Your task to perform on an android device: Open internet settings Image 0: 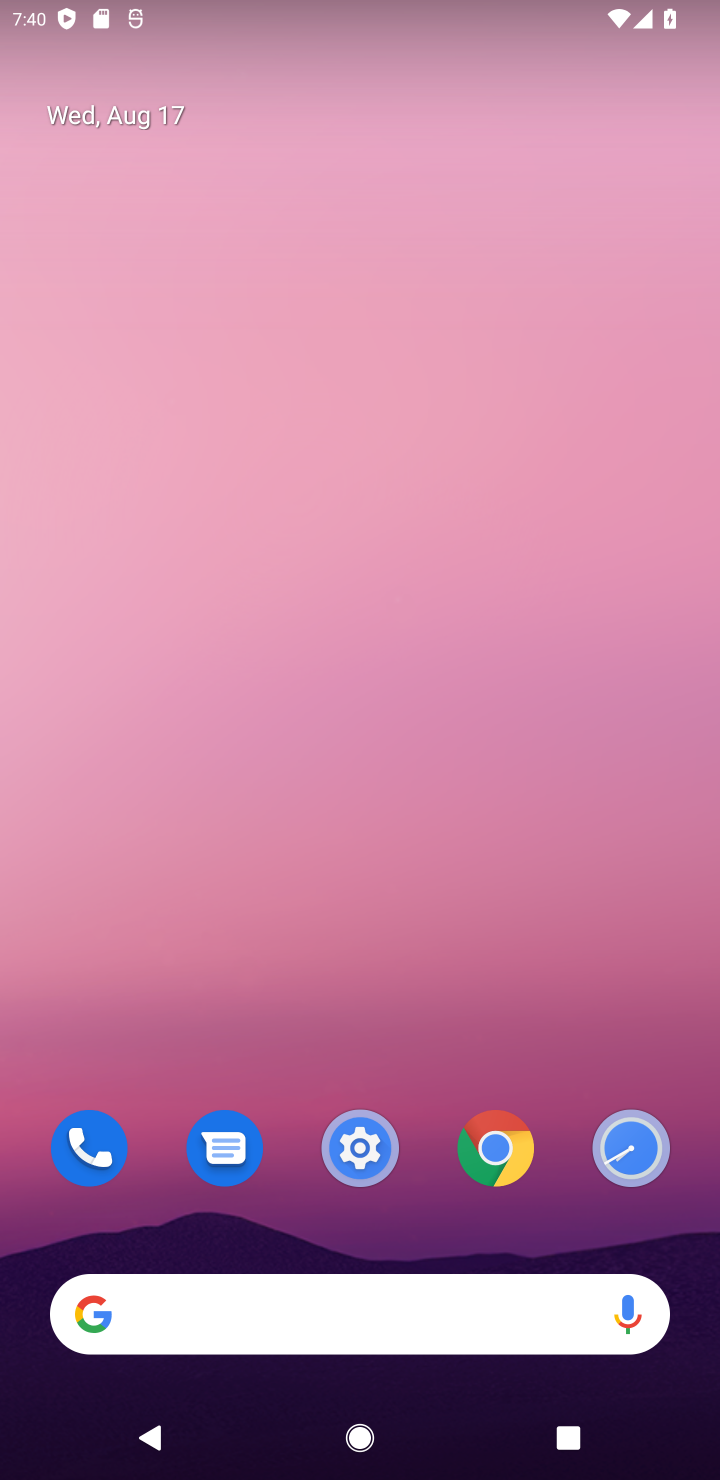
Step 0: click (353, 1147)
Your task to perform on an android device: Open internet settings Image 1: 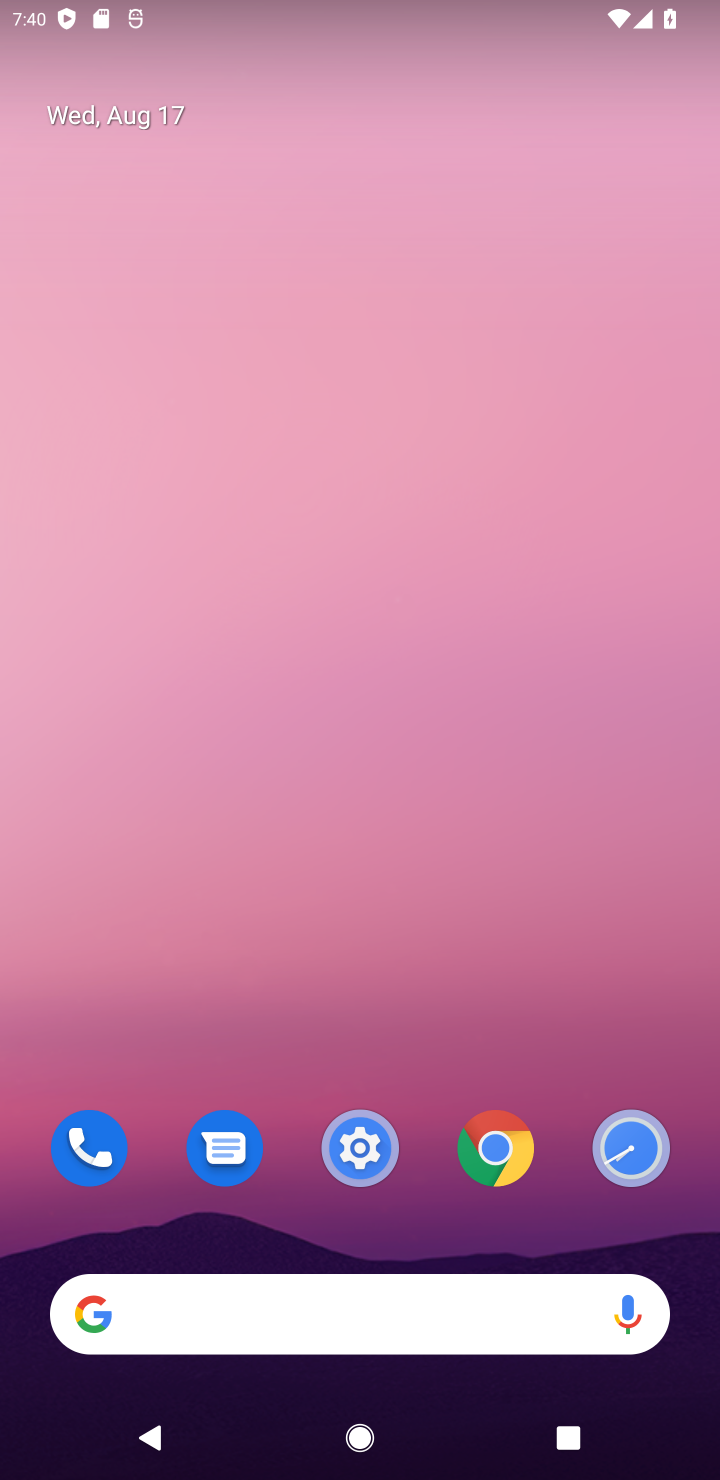
Step 1: click (379, 1151)
Your task to perform on an android device: Open internet settings Image 2: 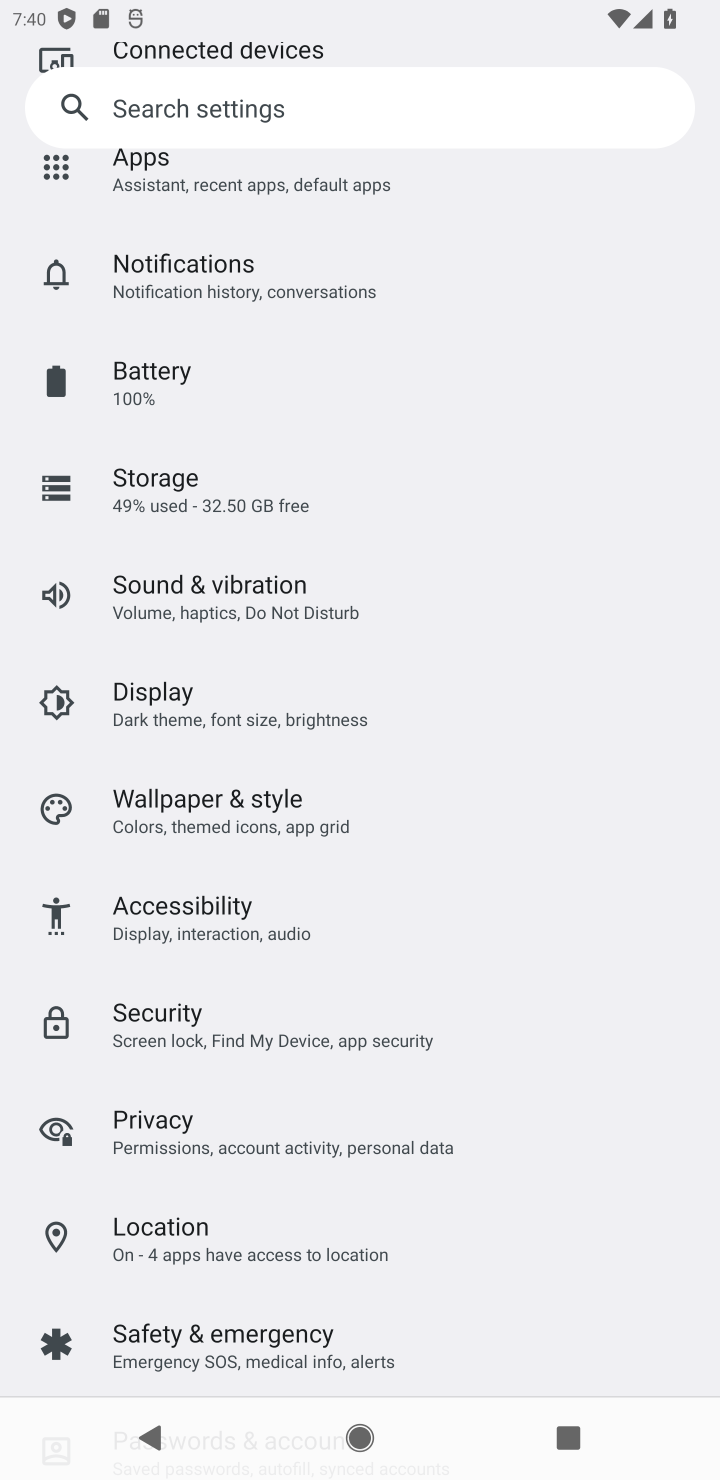
Step 2: drag from (257, 382) to (257, 1128)
Your task to perform on an android device: Open internet settings Image 3: 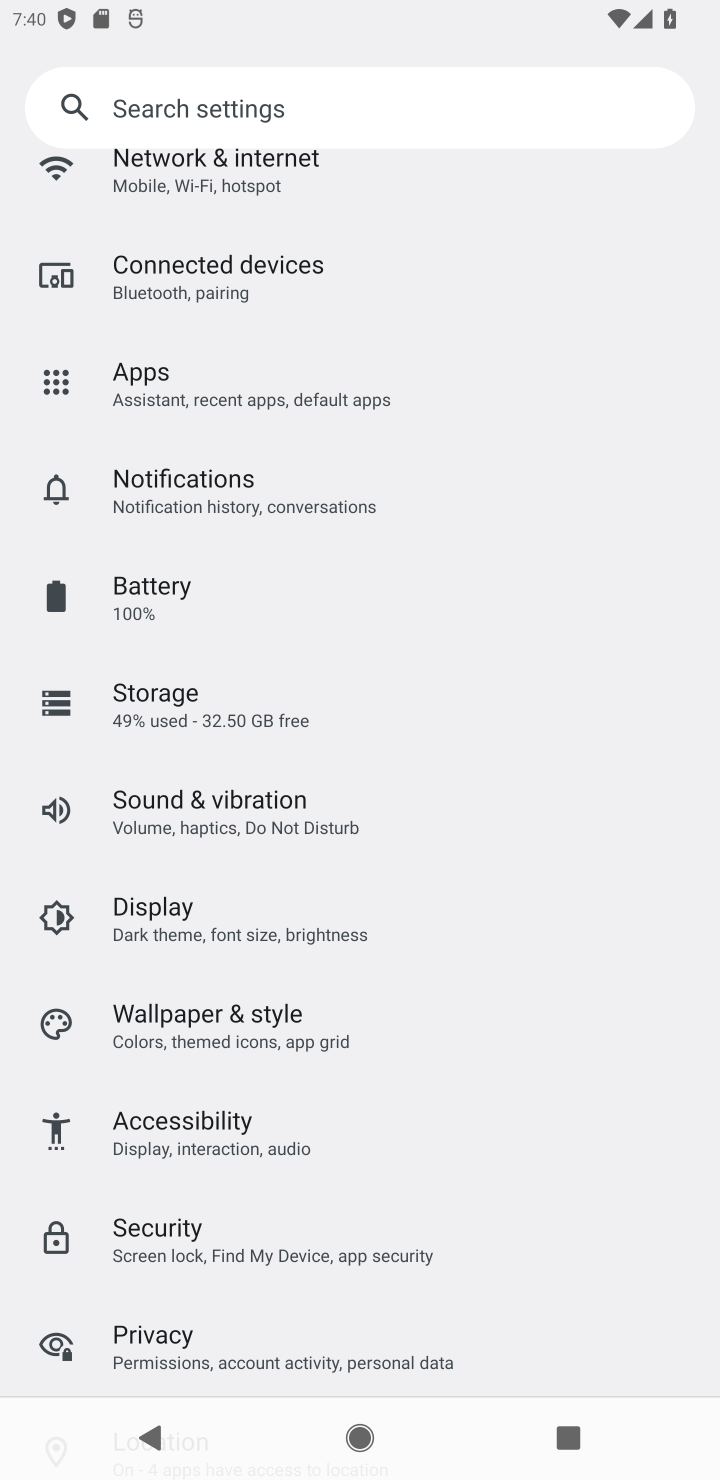
Step 3: drag from (118, 239) to (199, 1184)
Your task to perform on an android device: Open internet settings Image 4: 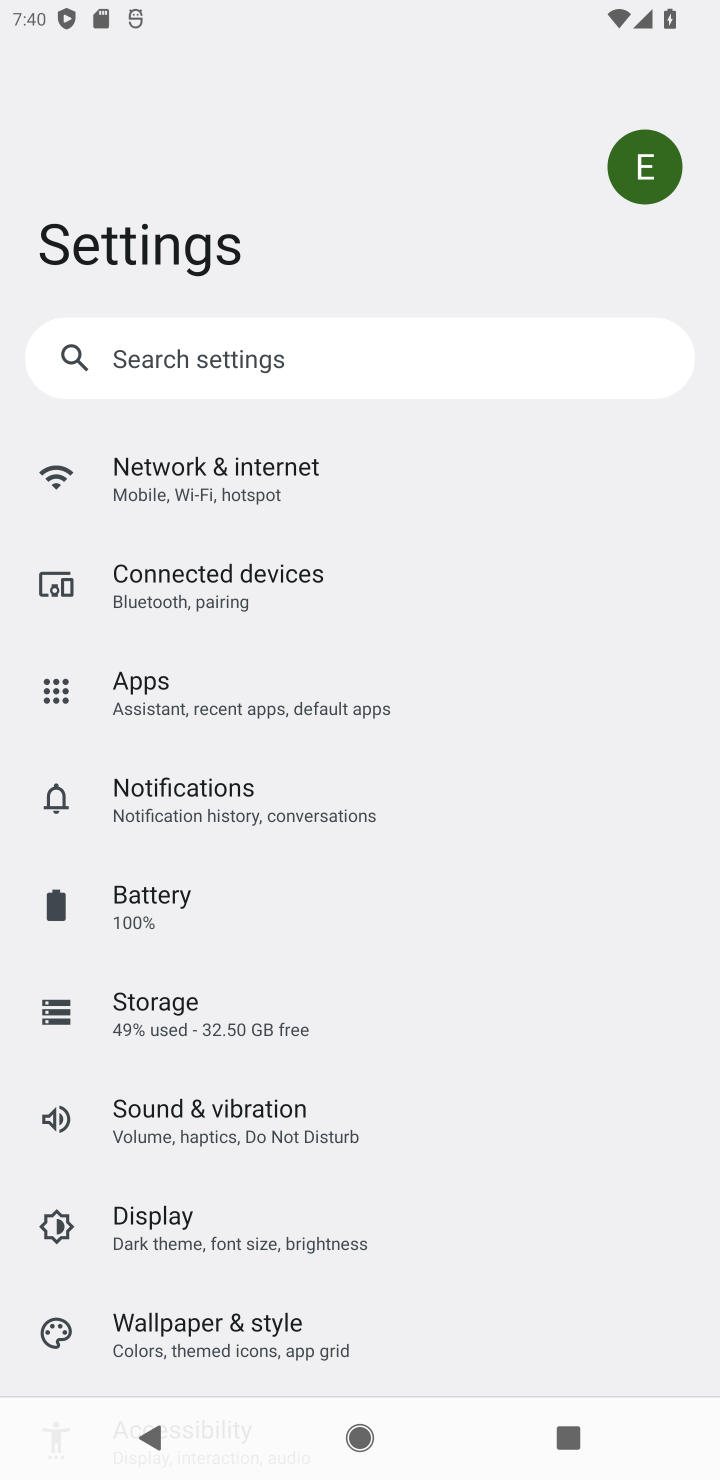
Step 4: click (186, 468)
Your task to perform on an android device: Open internet settings Image 5: 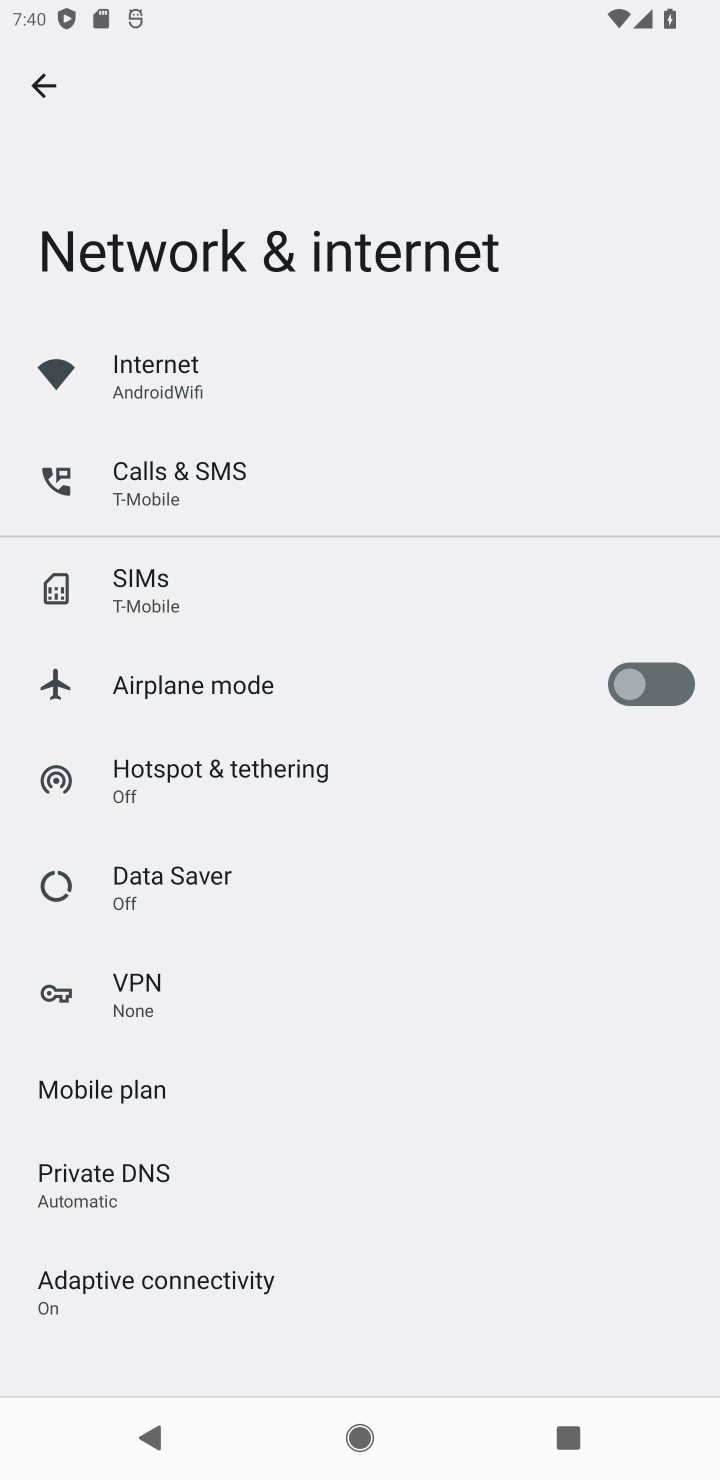
Step 5: click (141, 392)
Your task to perform on an android device: Open internet settings Image 6: 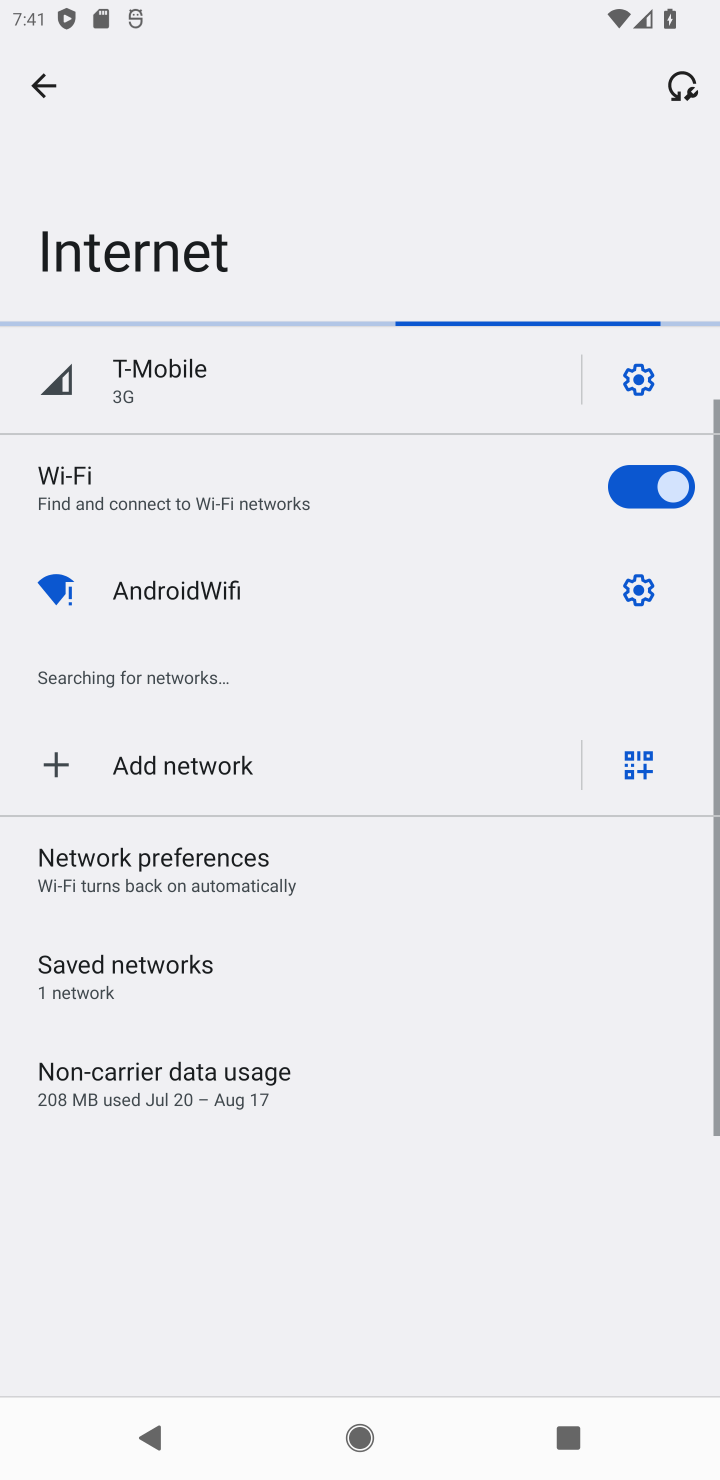
Step 6: task complete